Your task to perform on an android device: set default search engine in the chrome app Image 0: 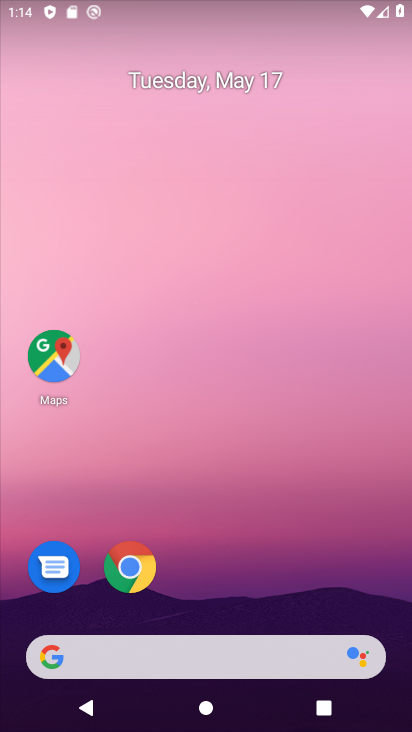
Step 0: click (133, 564)
Your task to perform on an android device: set default search engine in the chrome app Image 1: 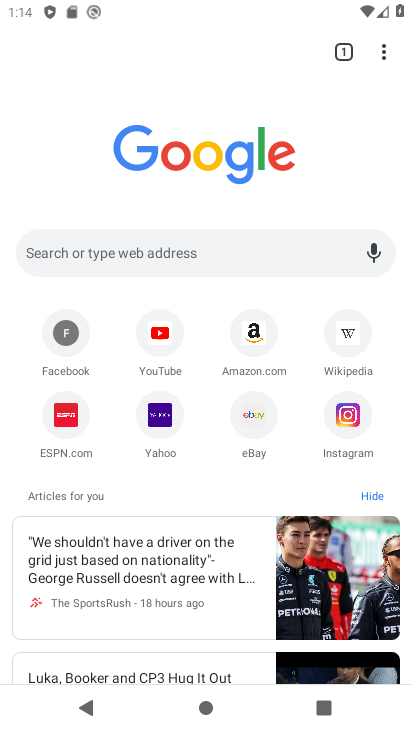
Step 1: click (387, 52)
Your task to perform on an android device: set default search engine in the chrome app Image 2: 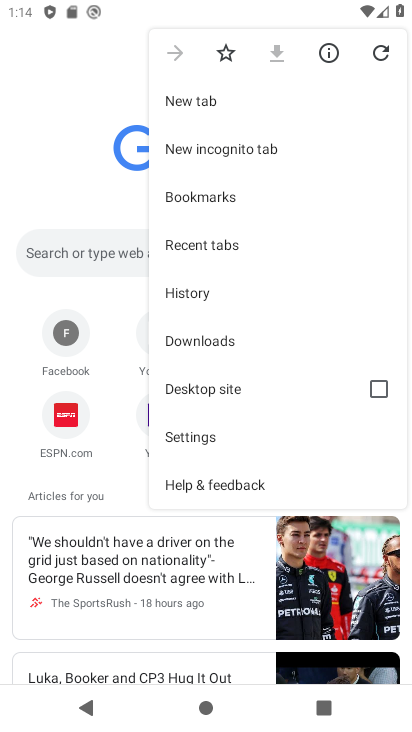
Step 2: click (199, 433)
Your task to perform on an android device: set default search engine in the chrome app Image 3: 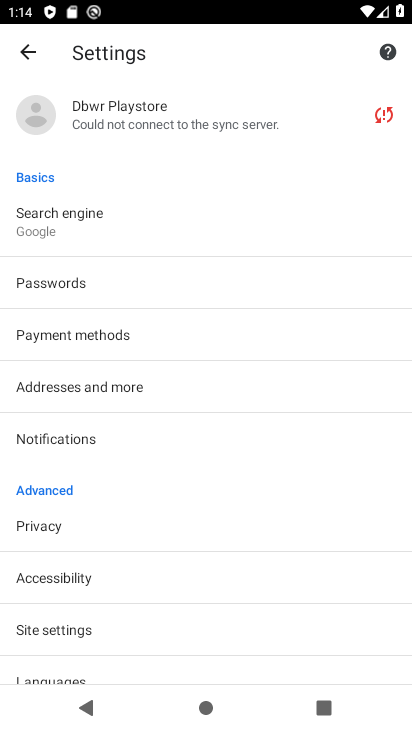
Step 3: drag from (209, 607) to (185, 239)
Your task to perform on an android device: set default search engine in the chrome app Image 4: 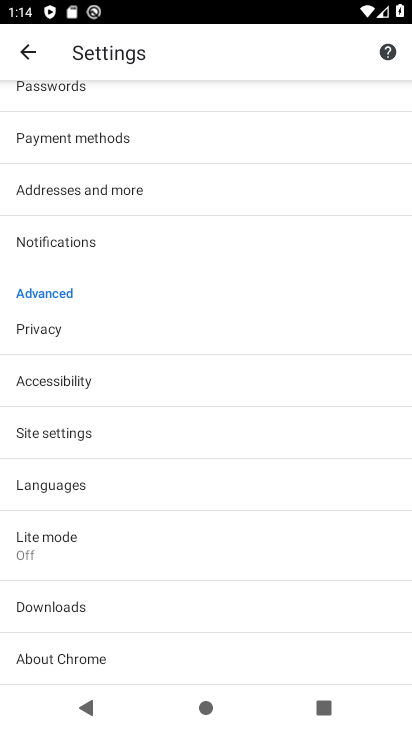
Step 4: drag from (173, 306) to (179, 572)
Your task to perform on an android device: set default search engine in the chrome app Image 5: 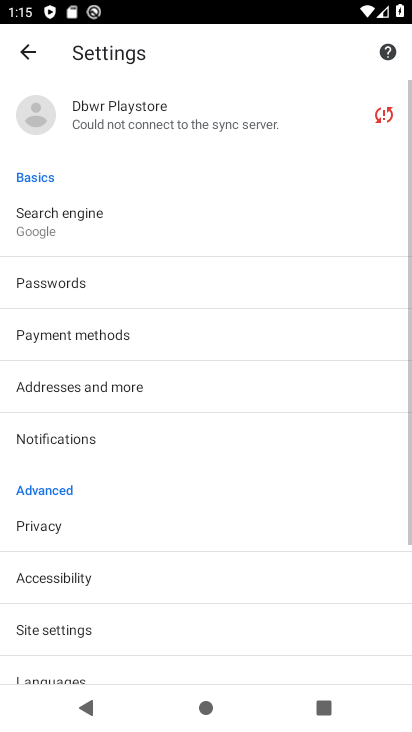
Step 5: click (49, 218)
Your task to perform on an android device: set default search engine in the chrome app Image 6: 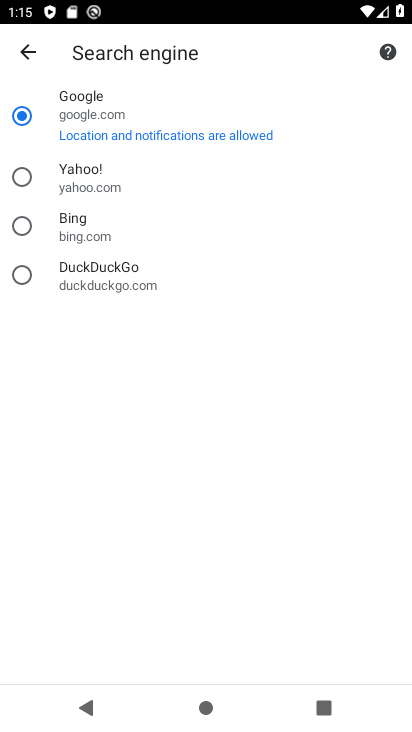
Step 6: click (21, 176)
Your task to perform on an android device: set default search engine in the chrome app Image 7: 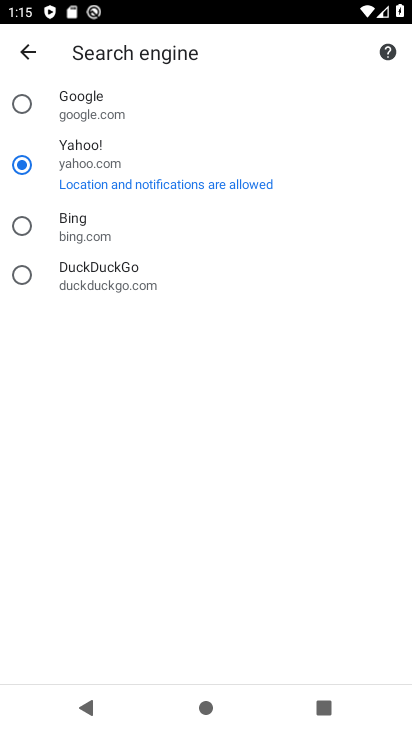
Step 7: task complete